Your task to perform on an android device: refresh tabs in the chrome app Image 0: 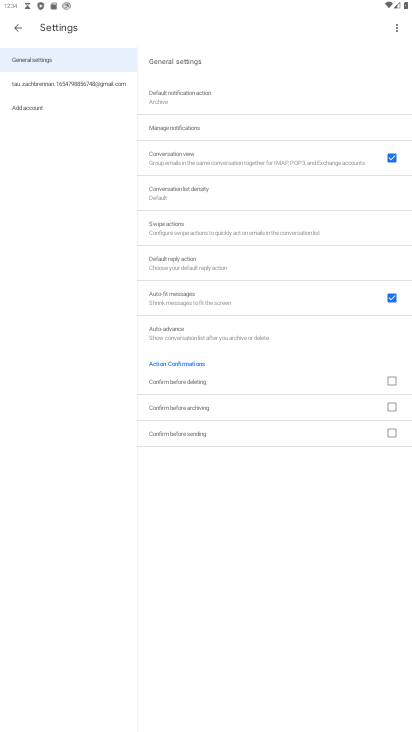
Step 0: press home button
Your task to perform on an android device: refresh tabs in the chrome app Image 1: 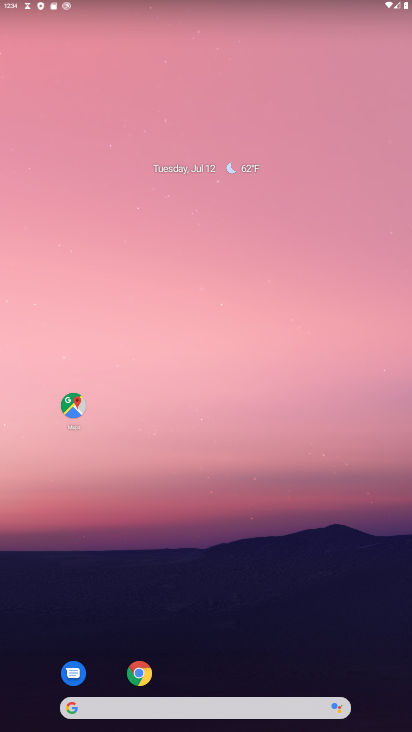
Step 1: click (143, 669)
Your task to perform on an android device: refresh tabs in the chrome app Image 2: 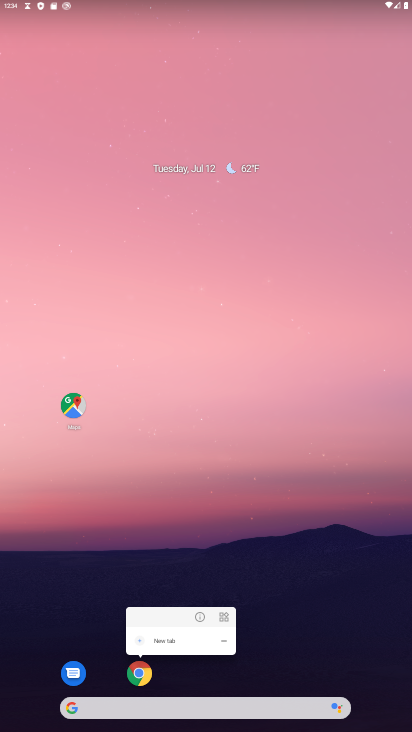
Step 2: click (143, 669)
Your task to perform on an android device: refresh tabs in the chrome app Image 3: 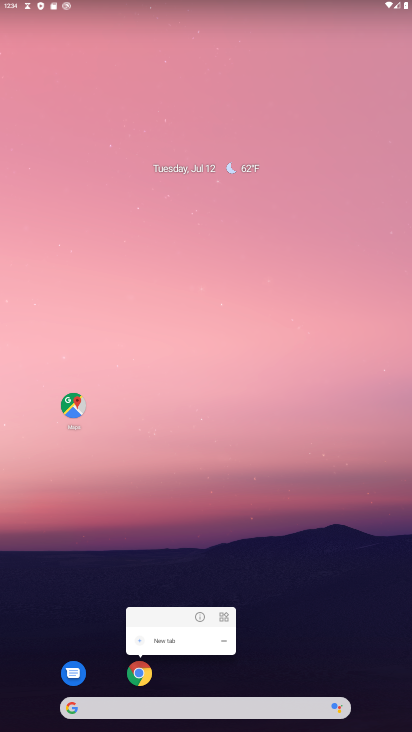
Step 3: click (138, 674)
Your task to perform on an android device: refresh tabs in the chrome app Image 4: 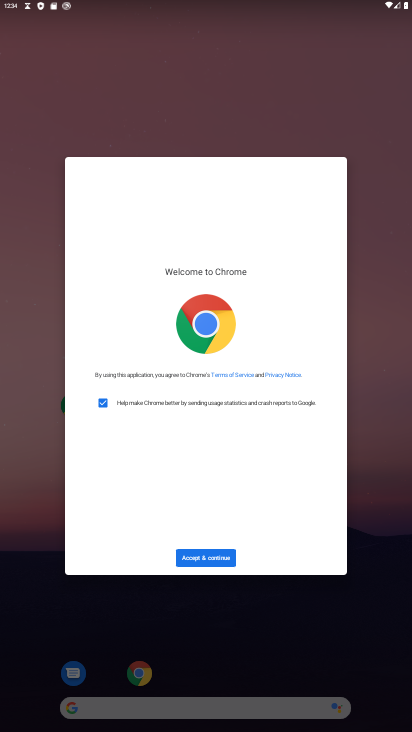
Step 4: click (209, 553)
Your task to perform on an android device: refresh tabs in the chrome app Image 5: 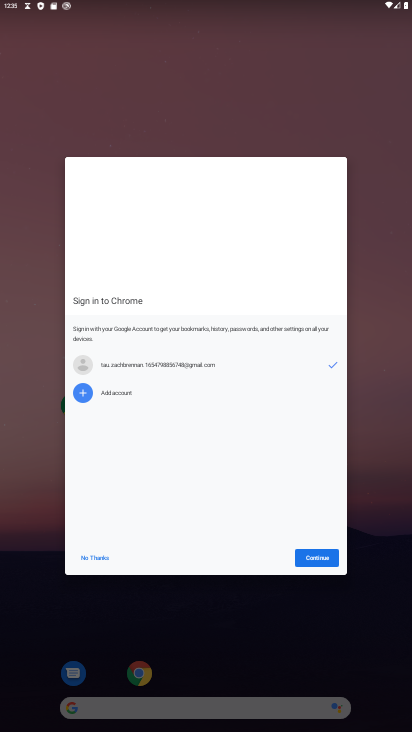
Step 5: click (316, 558)
Your task to perform on an android device: refresh tabs in the chrome app Image 6: 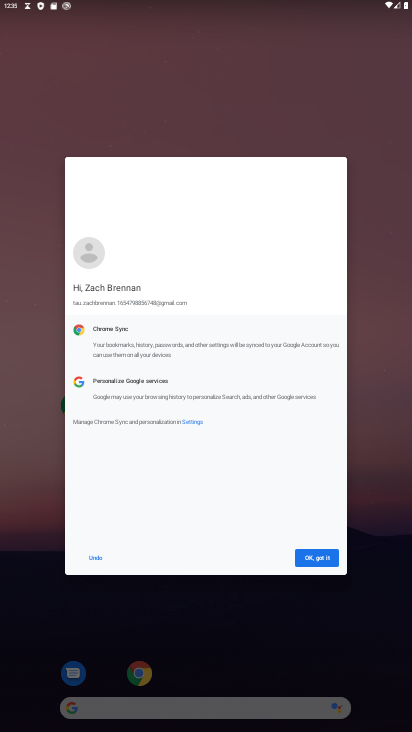
Step 6: click (316, 558)
Your task to perform on an android device: refresh tabs in the chrome app Image 7: 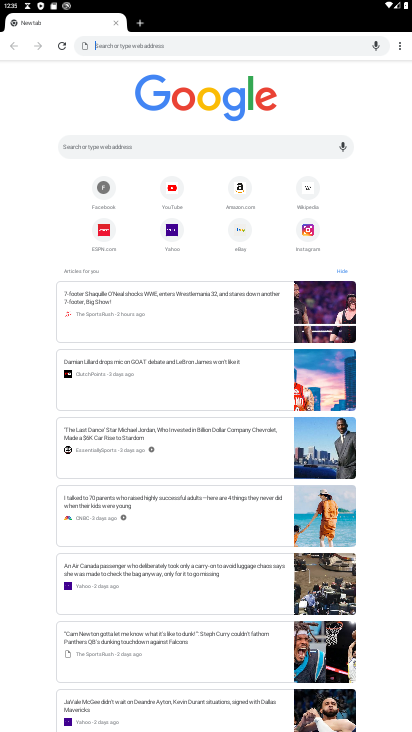
Step 7: click (401, 46)
Your task to perform on an android device: refresh tabs in the chrome app Image 8: 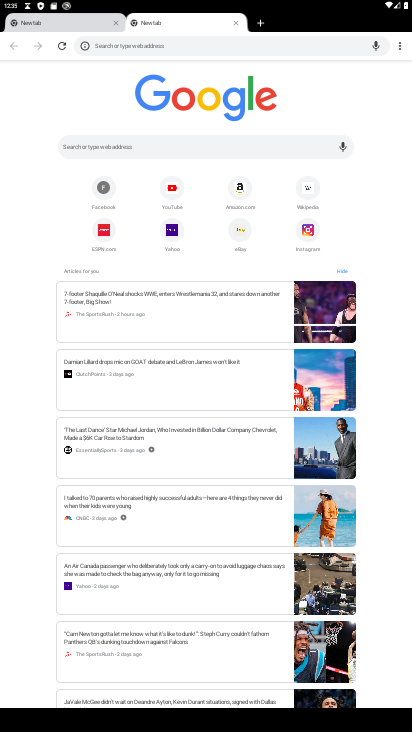
Step 8: task complete